Your task to perform on an android device: Open the map Image 0: 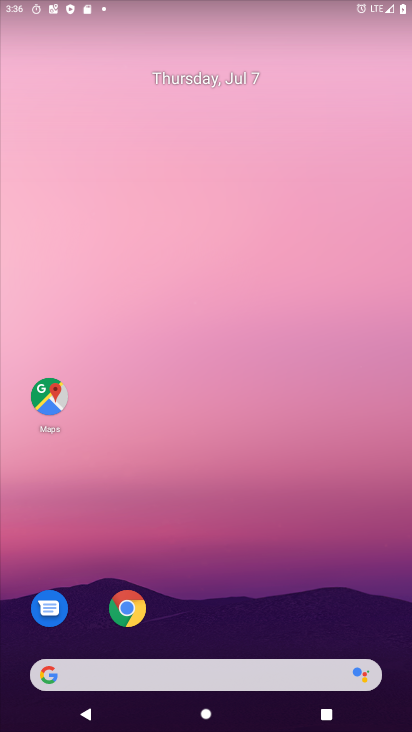
Step 0: drag from (257, 725) to (257, 111)
Your task to perform on an android device: Open the map Image 1: 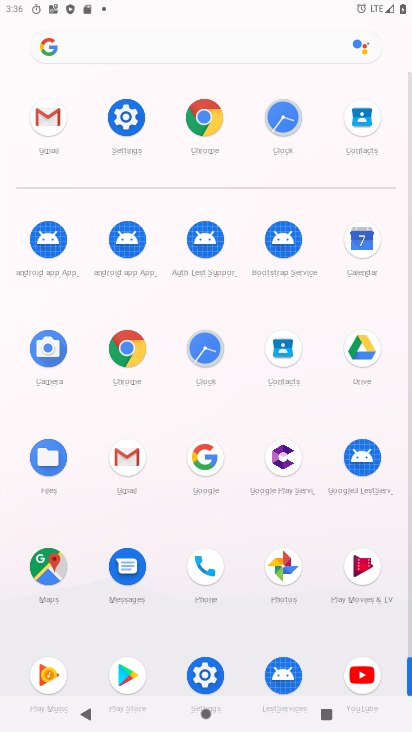
Step 1: click (47, 572)
Your task to perform on an android device: Open the map Image 2: 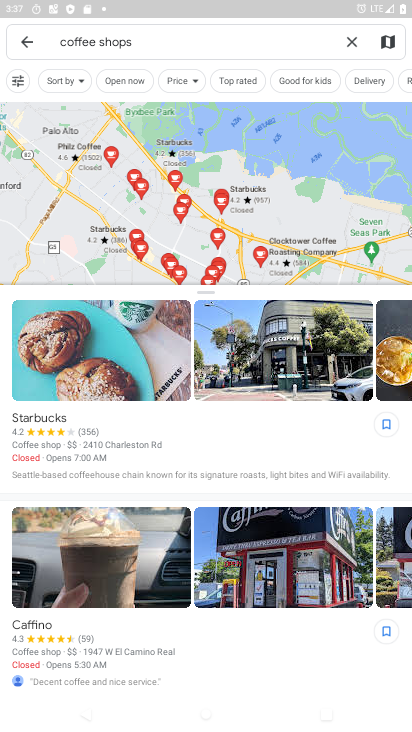
Step 2: task complete